Your task to perform on an android device: Open Chrome and go to the settings page Image 0: 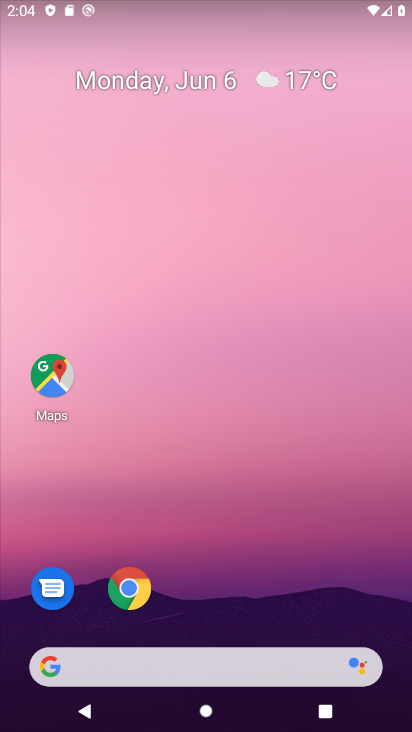
Step 0: click (119, 600)
Your task to perform on an android device: Open Chrome and go to the settings page Image 1: 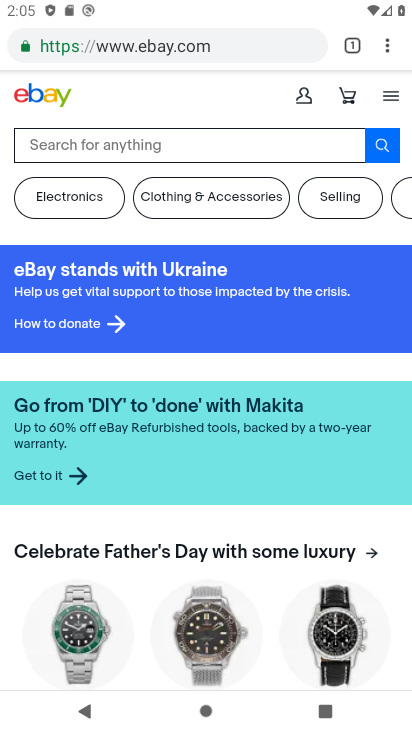
Step 1: task complete